Your task to perform on an android device: allow cookies in the chrome app Image 0: 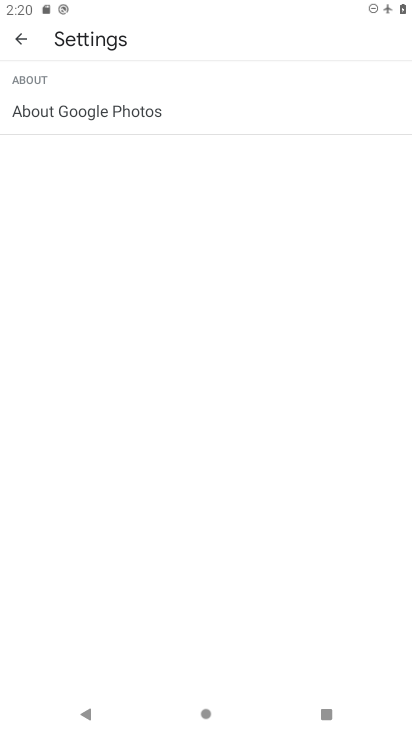
Step 0: press home button
Your task to perform on an android device: allow cookies in the chrome app Image 1: 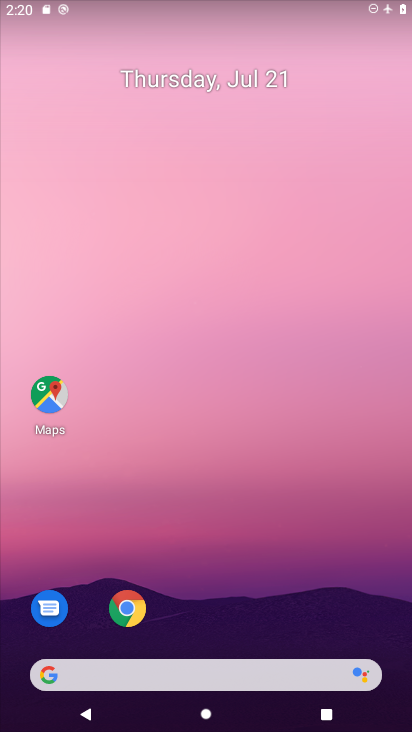
Step 1: drag from (245, 622) to (238, 113)
Your task to perform on an android device: allow cookies in the chrome app Image 2: 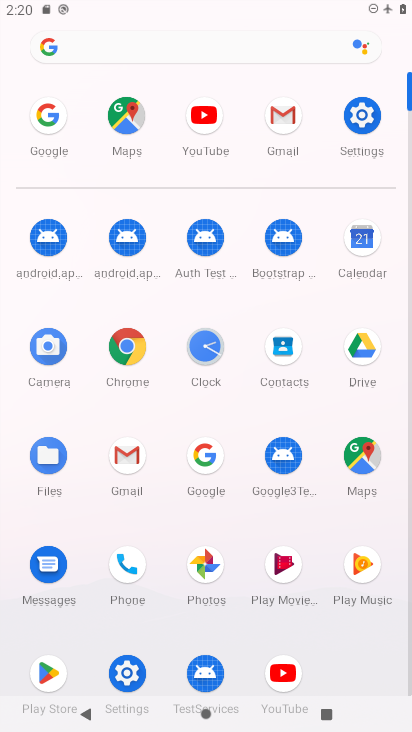
Step 2: click (129, 351)
Your task to perform on an android device: allow cookies in the chrome app Image 3: 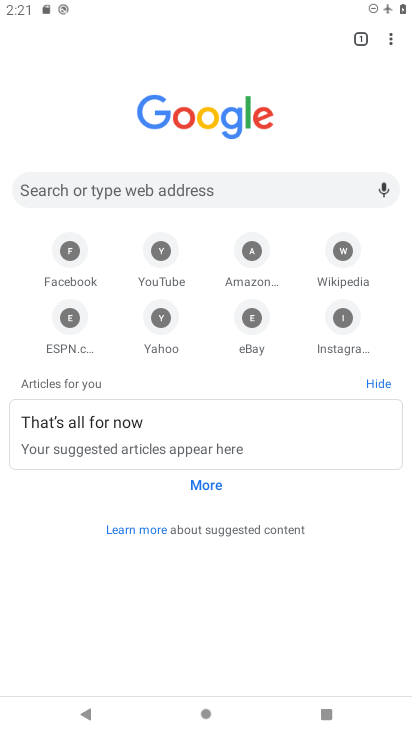
Step 3: click (389, 38)
Your task to perform on an android device: allow cookies in the chrome app Image 4: 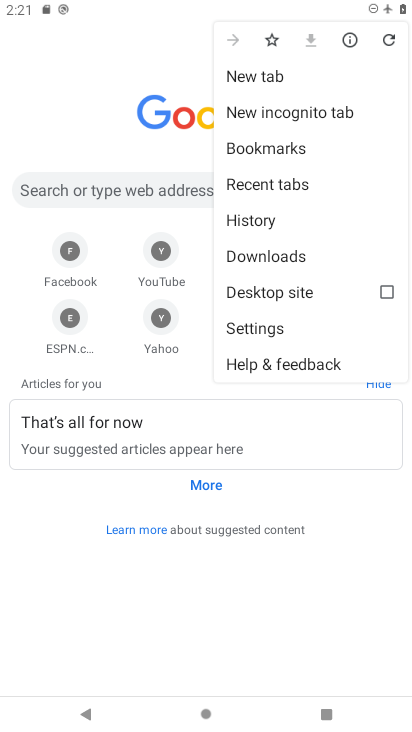
Step 4: click (248, 324)
Your task to perform on an android device: allow cookies in the chrome app Image 5: 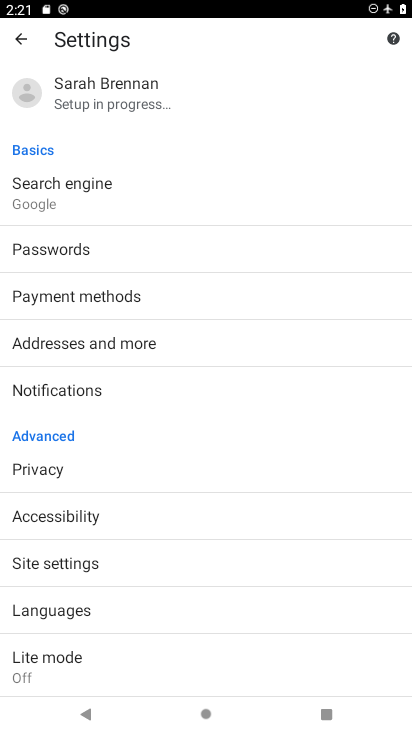
Step 5: click (53, 562)
Your task to perform on an android device: allow cookies in the chrome app Image 6: 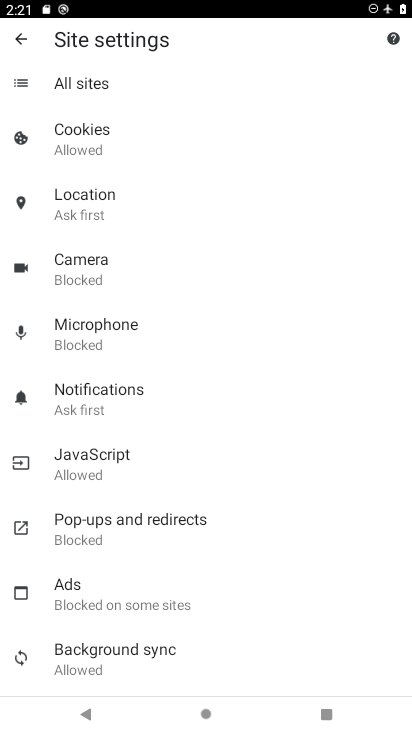
Step 6: click (83, 135)
Your task to perform on an android device: allow cookies in the chrome app Image 7: 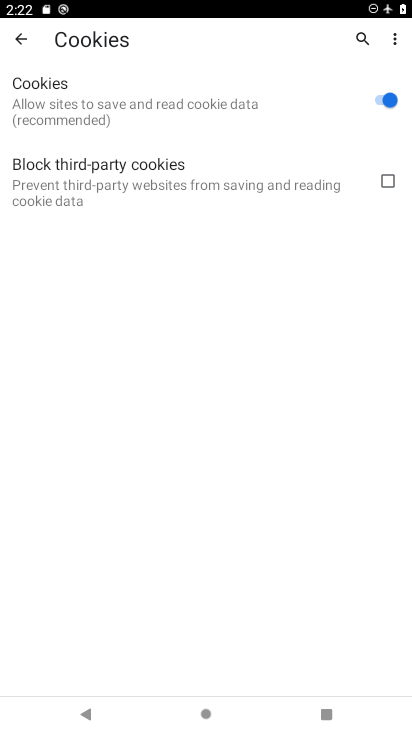
Step 7: task complete